Your task to perform on an android device: Add amazon basics triple a to the cart on walmart.com, then select checkout. Image 0: 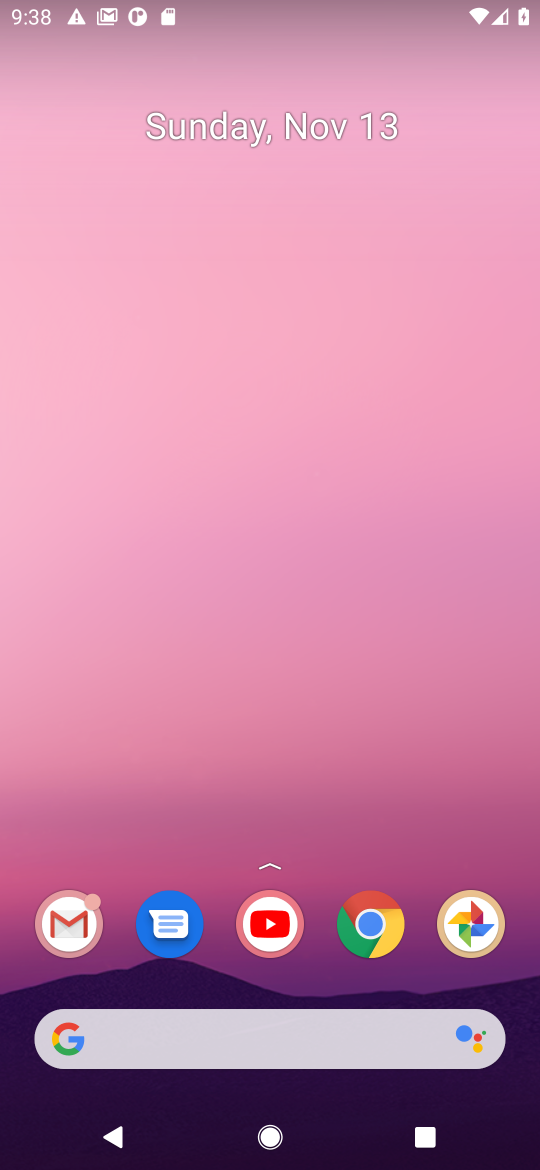
Step 0: click (363, 929)
Your task to perform on an android device: Add amazon basics triple a to the cart on walmart.com, then select checkout. Image 1: 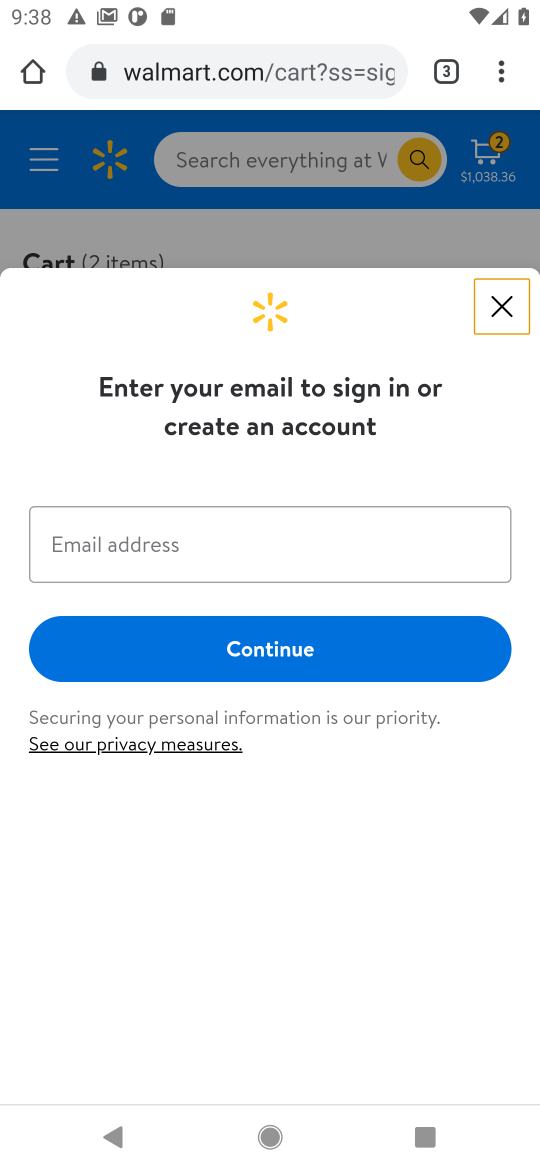
Step 1: click (490, 305)
Your task to perform on an android device: Add amazon basics triple a to the cart on walmart.com, then select checkout. Image 2: 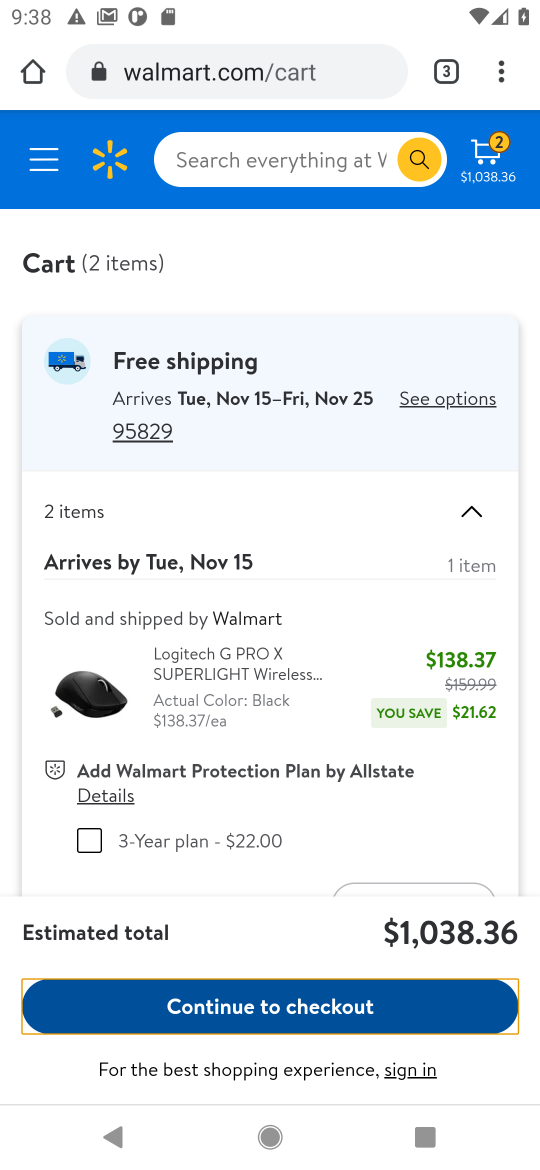
Step 2: click (252, 159)
Your task to perform on an android device: Add amazon basics triple a to the cart on walmart.com, then select checkout. Image 3: 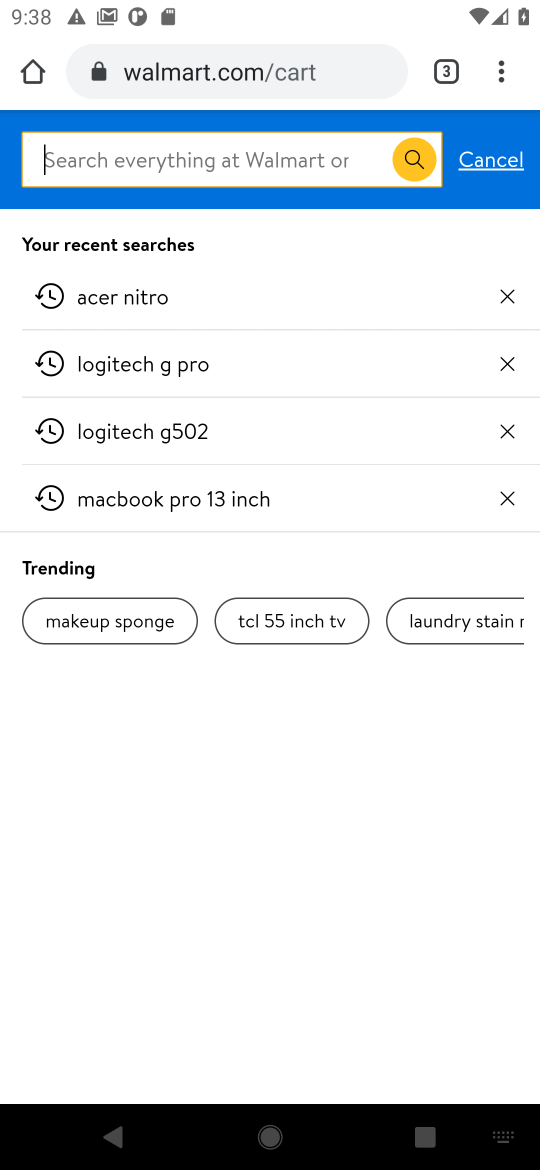
Step 3: type "amazon basics triple a"
Your task to perform on an android device: Add amazon basics triple a to the cart on walmart.com, then select checkout. Image 4: 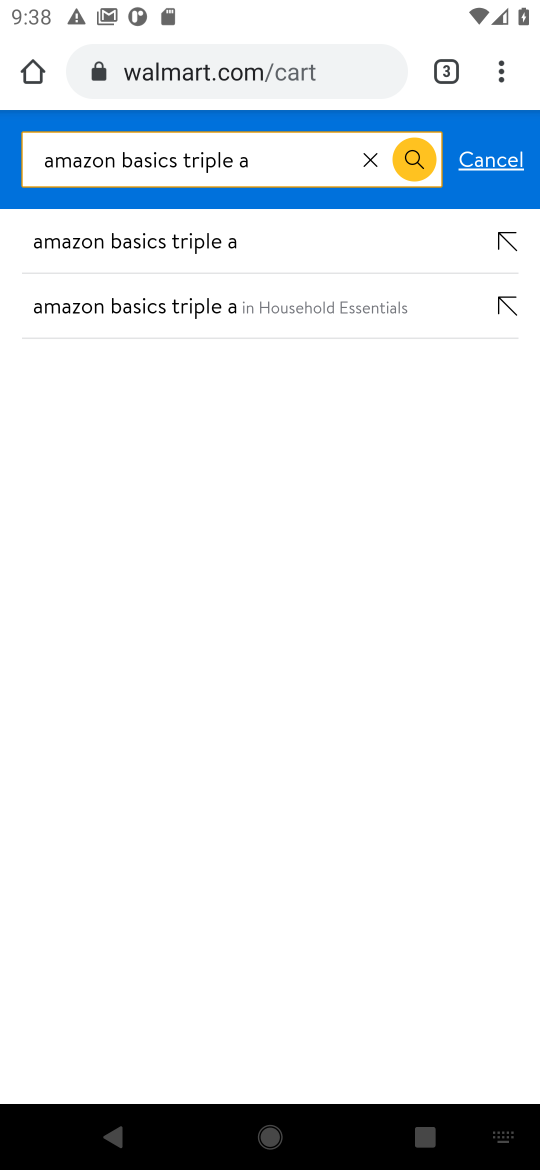
Step 4: click (183, 246)
Your task to perform on an android device: Add amazon basics triple a to the cart on walmart.com, then select checkout. Image 5: 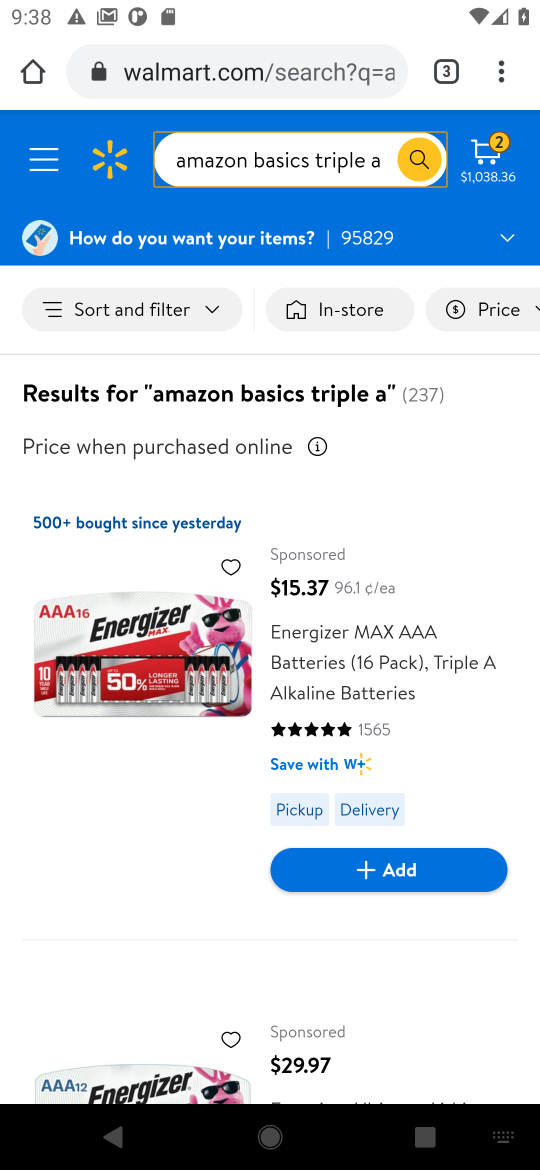
Step 5: task complete